Your task to perform on an android device: Play the last video I watched on Youtube Image 0: 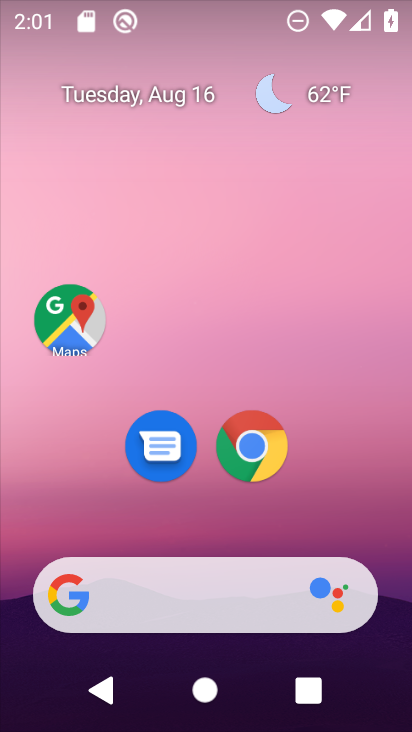
Step 0: drag from (204, 537) to (224, 125)
Your task to perform on an android device: Play the last video I watched on Youtube Image 1: 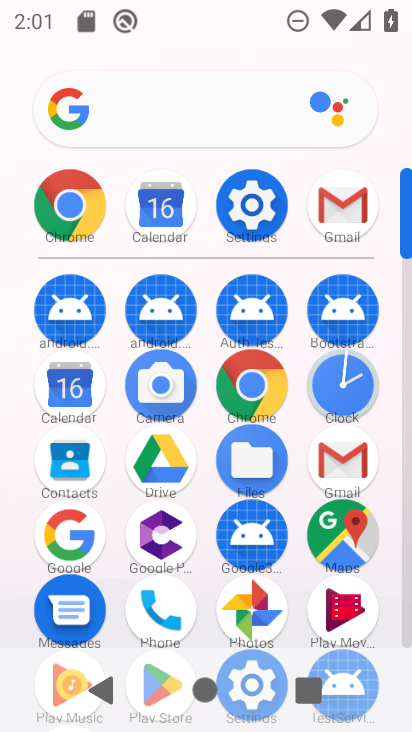
Step 1: drag from (200, 571) to (216, 141)
Your task to perform on an android device: Play the last video I watched on Youtube Image 2: 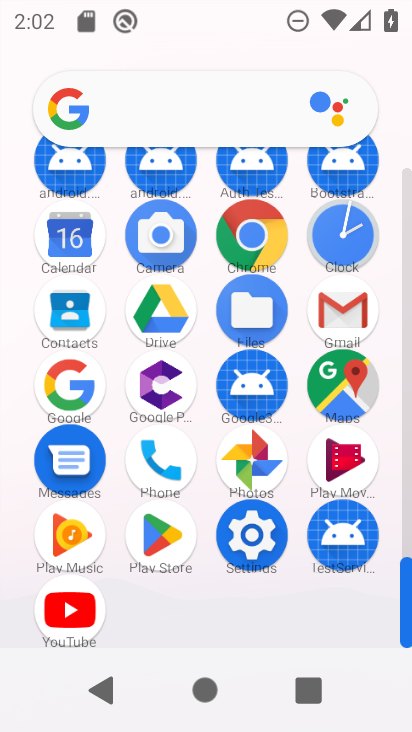
Step 2: click (71, 605)
Your task to perform on an android device: Play the last video I watched on Youtube Image 3: 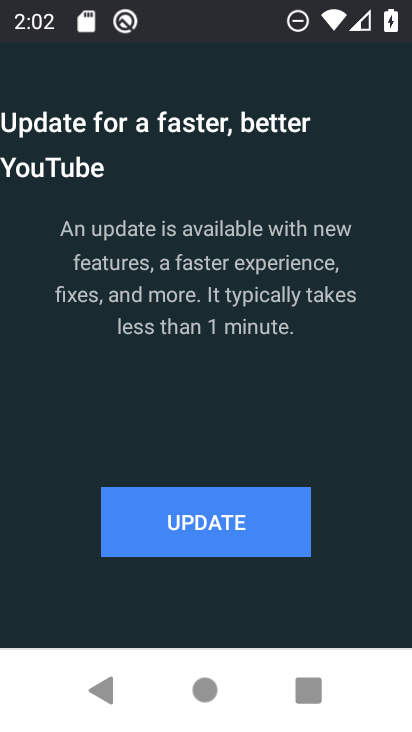
Step 3: click (189, 530)
Your task to perform on an android device: Play the last video I watched on Youtube Image 4: 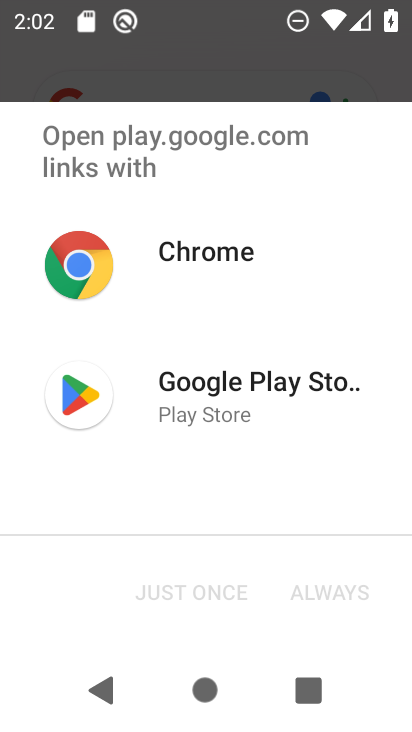
Step 4: click (126, 409)
Your task to perform on an android device: Play the last video I watched on Youtube Image 5: 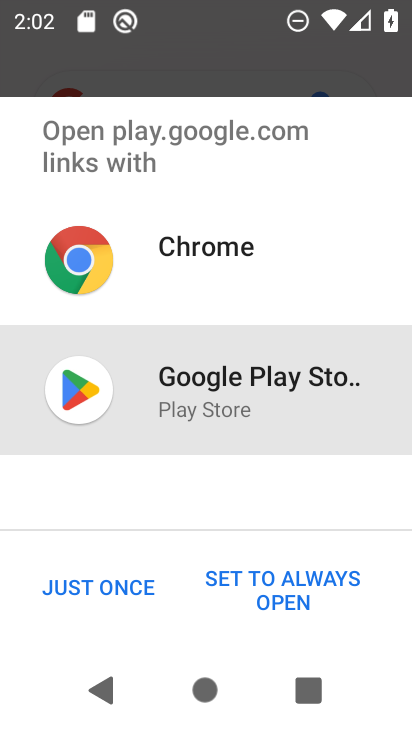
Step 5: click (118, 588)
Your task to perform on an android device: Play the last video I watched on Youtube Image 6: 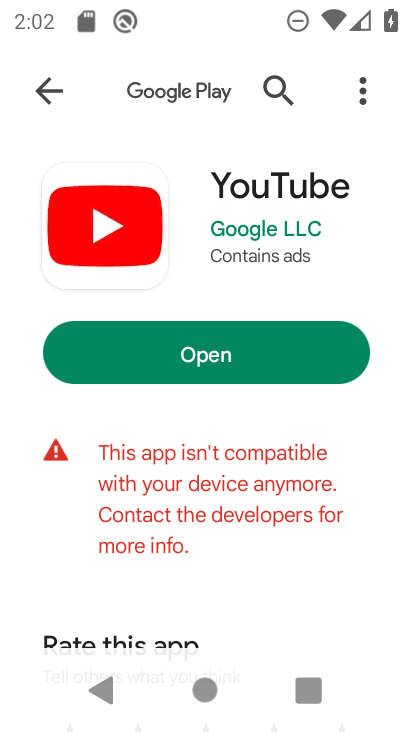
Step 6: click (235, 335)
Your task to perform on an android device: Play the last video I watched on Youtube Image 7: 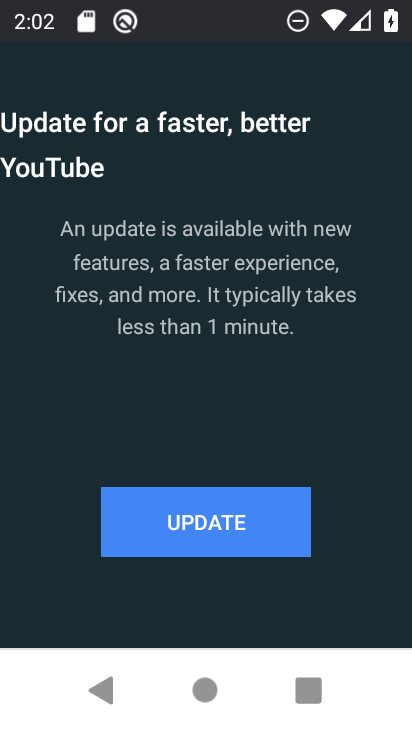
Step 7: click (224, 524)
Your task to perform on an android device: Play the last video I watched on Youtube Image 8: 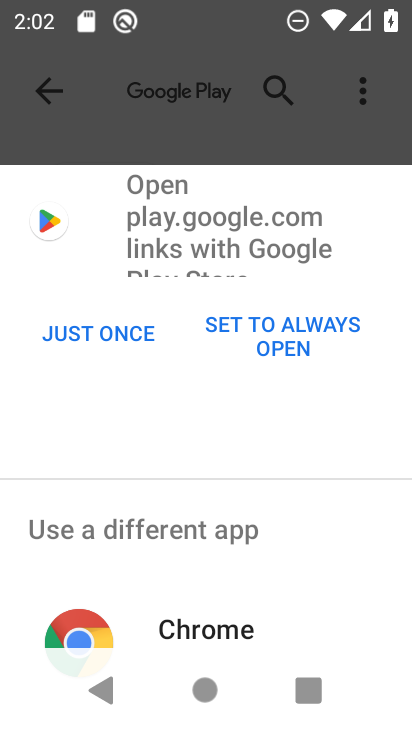
Step 8: click (111, 336)
Your task to perform on an android device: Play the last video I watched on Youtube Image 9: 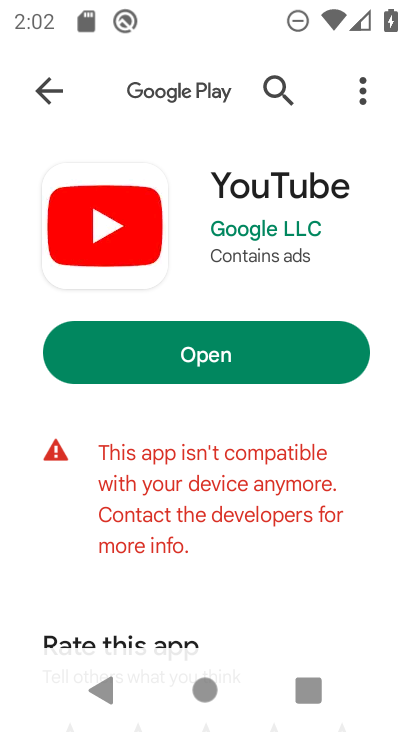
Step 9: task complete